Your task to perform on an android device: Toggle the flashlight Image 0: 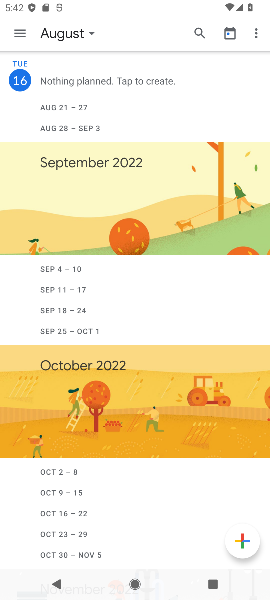
Step 0: press home button
Your task to perform on an android device: Toggle the flashlight Image 1: 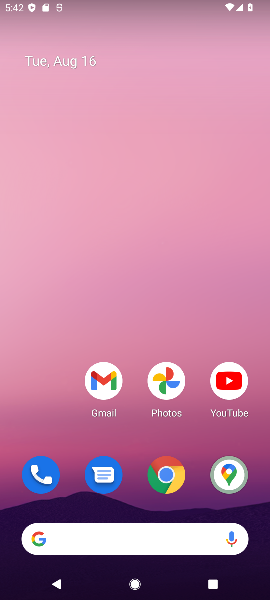
Step 1: drag from (247, 517) to (81, 0)
Your task to perform on an android device: Toggle the flashlight Image 2: 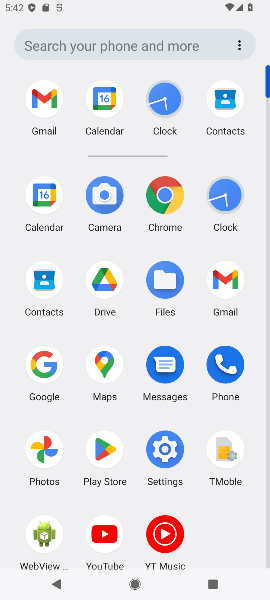
Step 2: click (160, 438)
Your task to perform on an android device: Toggle the flashlight Image 3: 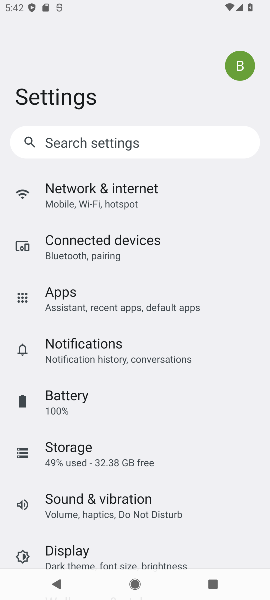
Step 3: task complete